Your task to perform on an android device: turn off location Image 0: 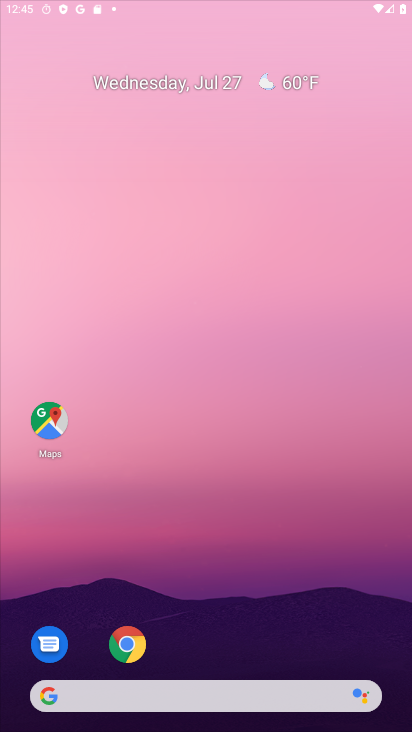
Step 0: click (371, 0)
Your task to perform on an android device: turn off location Image 1: 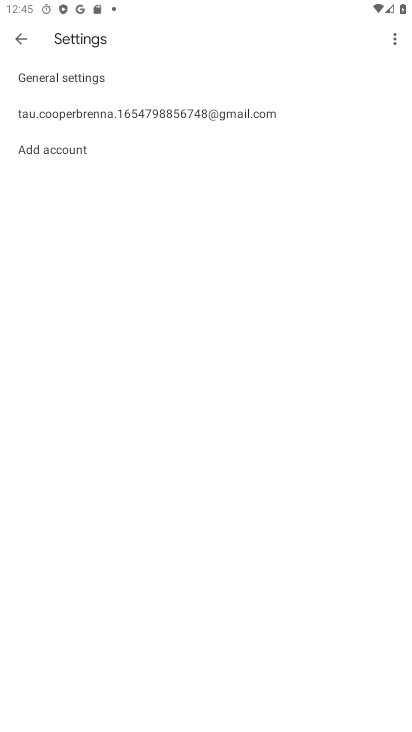
Step 1: drag from (267, 500) to (270, 213)
Your task to perform on an android device: turn off location Image 2: 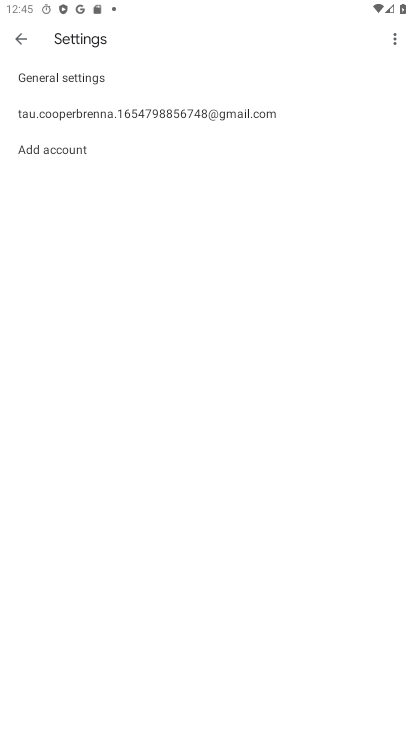
Step 2: press home button
Your task to perform on an android device: turn off location Image 3: 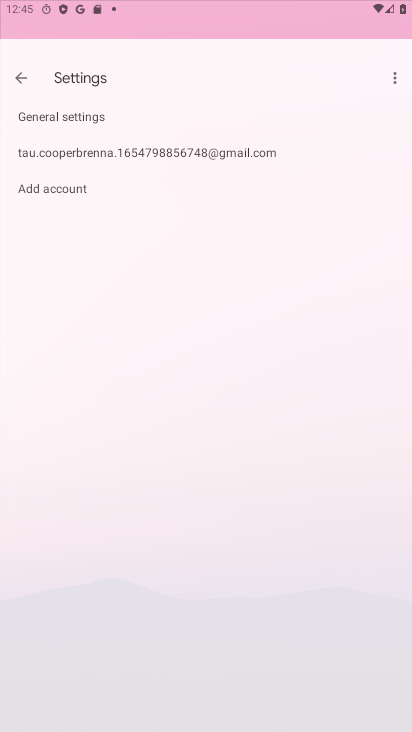
Step 3: drag from (212, 373) to (257, 7)
Your task to perform on an android device: turn off location Image 4: 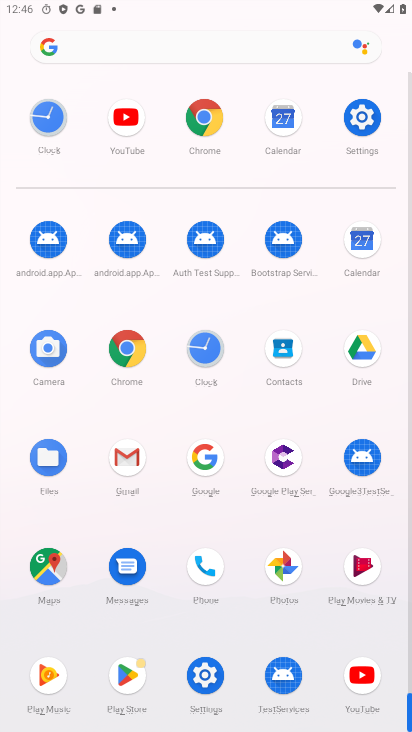
Step 4: click (210, 679)
Your task to perform on an android device: turn off location Image 5: 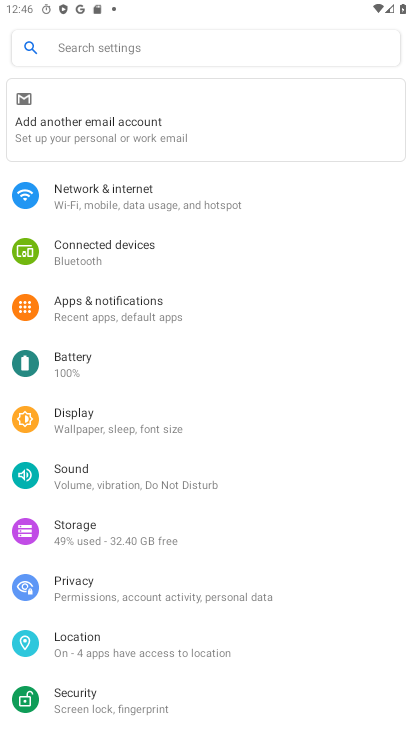
Step 5: click (131, 641)
Your task to perform on an android device: turn off location Image 6: 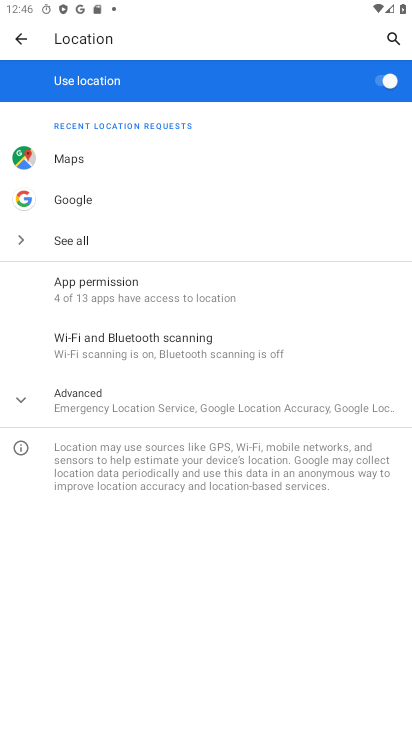
Step 6: click (381, 77)
Your task to perform on an android device: turn off location Image 7: 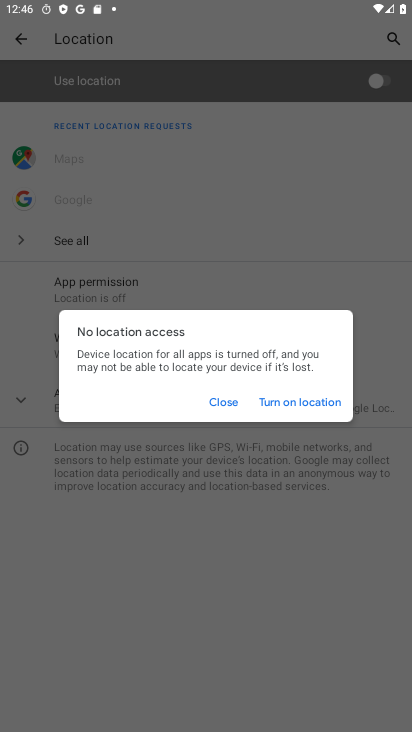
Step 7: task complete